Your task to perform on an android device: change the clock display to digital Image 0: 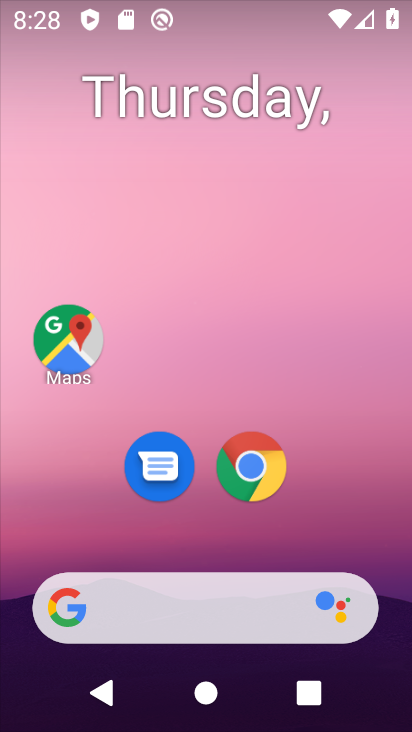
Step 0: press home button
Your task to perform on an android device: change the clock display to digital Image 1: 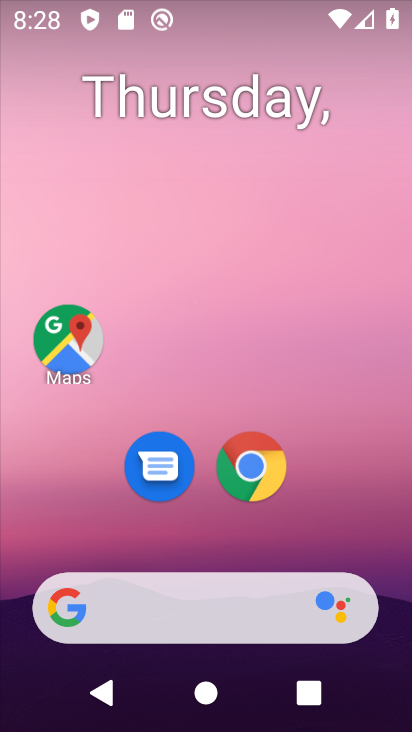
Step 1: drag from (177, 595) to (326, 169)
Your task to perform on an android device: change the clock display to digital Image 2: 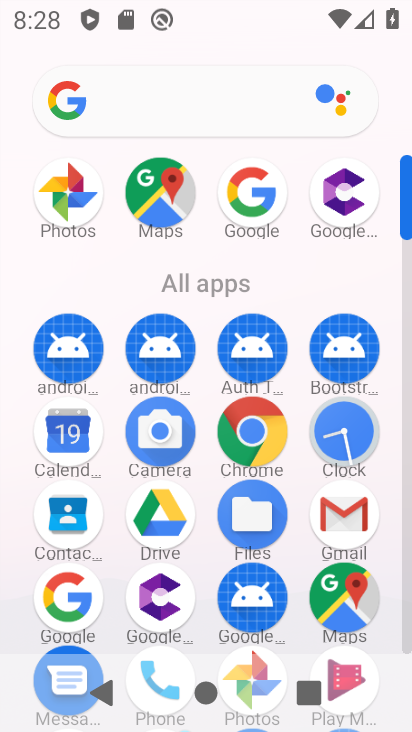
Step 2: click (356, 445)
Your task to perform on an android device: change the clock display to digital Image 3: 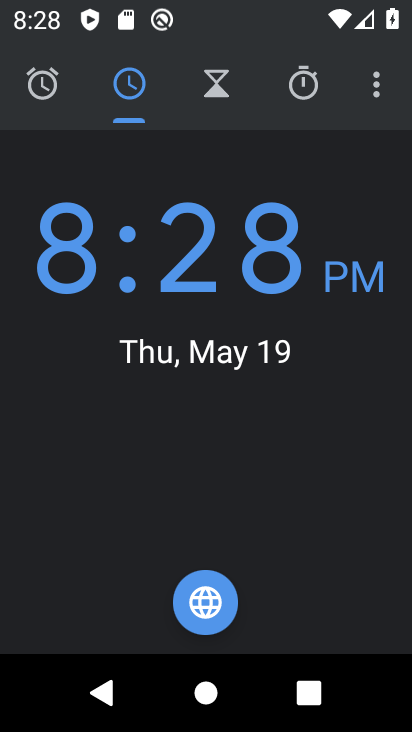
Step 3: click (374, 94)
Your task to perform on an android device: change the clock display to digital Image 4: 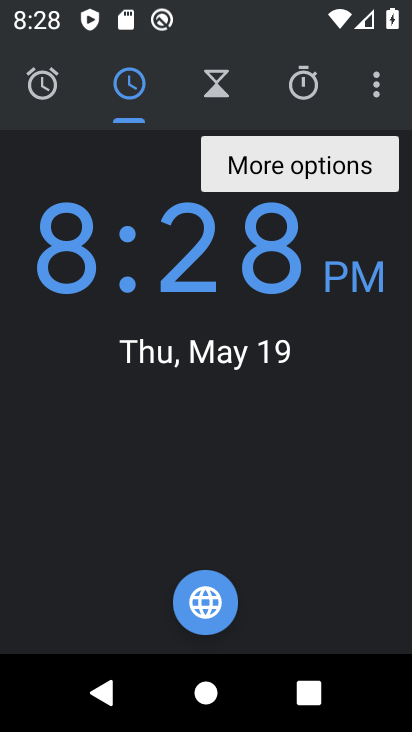
Step 4: click (374, 94)
Your task to perform on an android device: change the clock display to digital Image 5: 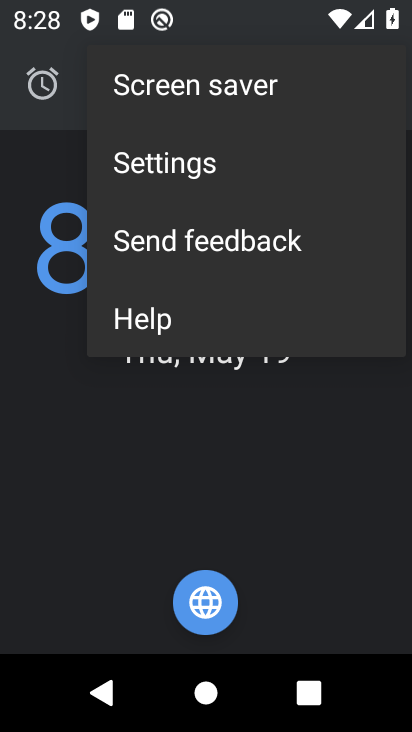
Step 5: click (159, 163)
Your task to perform on an android device: change the clock display to digital Image 6: 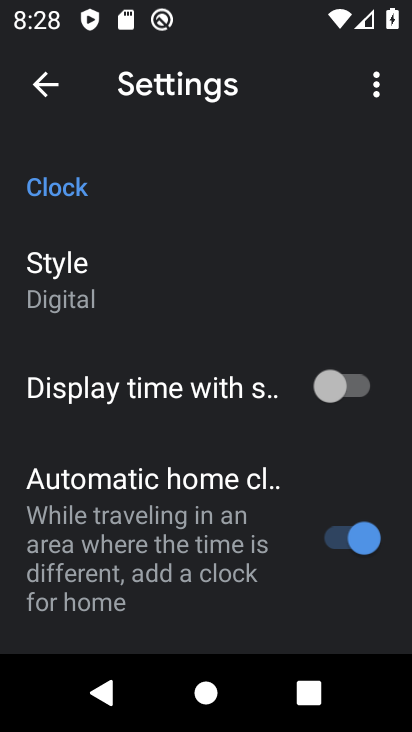
Step 6: task complete